Your task to perform on an android device: stop showing notifications on the lock screen Image 0: 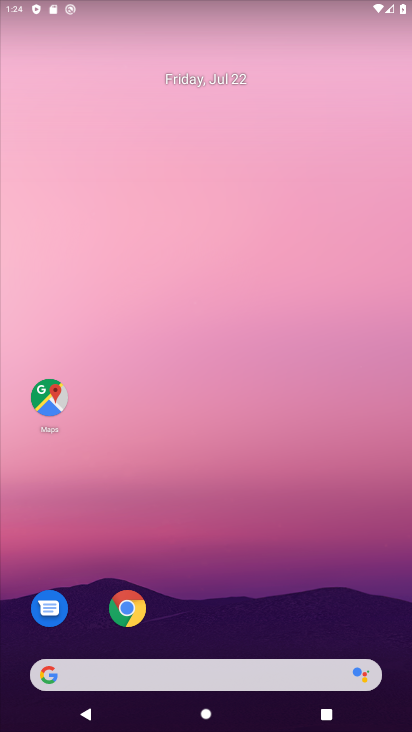
Step 0: drag from (393, 678) to (345, 78)
Your task to perform on an android device: stop showing notifications on the lock screen Image 1: 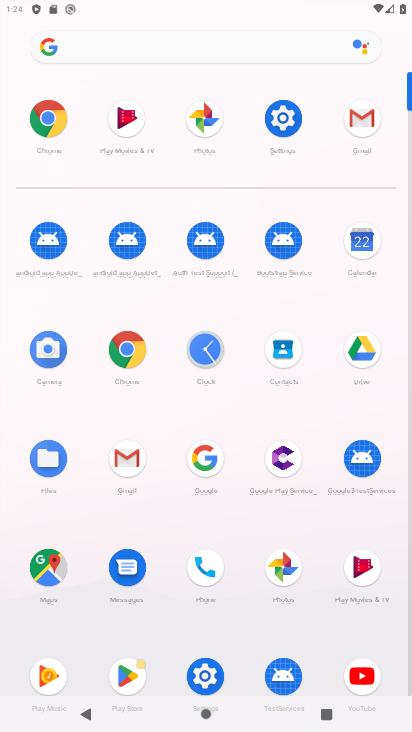
Step 1: click (284, 121)
Your task to perform on an android device: stop showing notifications on the lock screen Image 2: 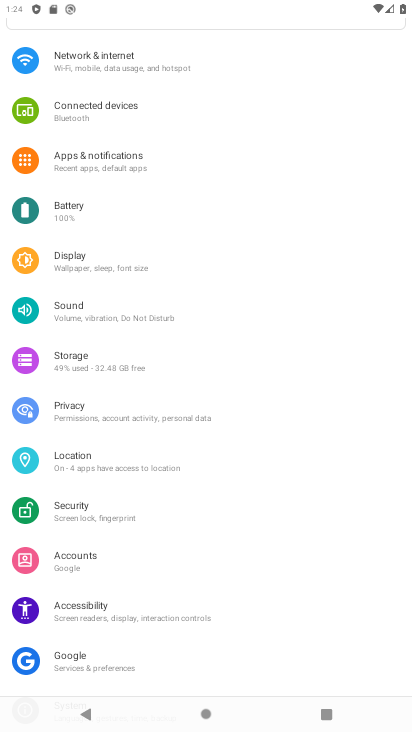
Step 2: click (95, 161)
Your task to perform on an android device: stop showing notifications on the lock screen Image 3: 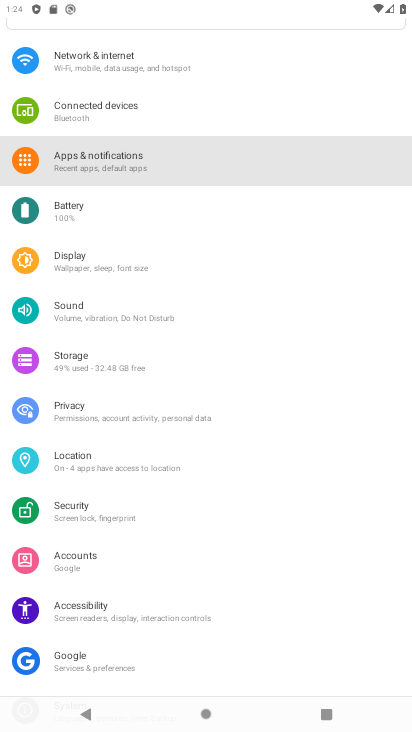
Step 3: click (103, 151)
Your task to perform on an android device: stop showing notifications on the lock screen Image 4: 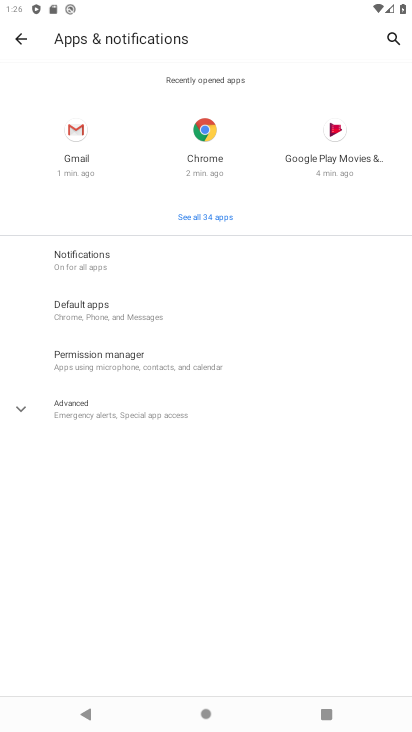
Step 4: click (73, 266)
Your task to perform on an android device: stop showing notifications on the lock screen Image 5: 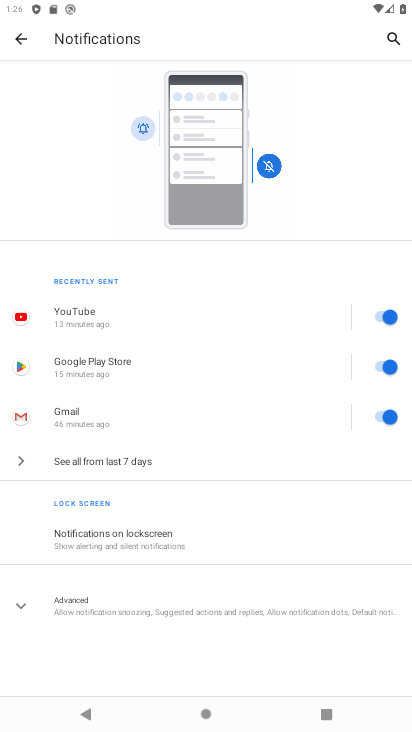
Step 5: click (85, 539)
Your task to perform on an android device: stop showing notifications on the lock screen Image 6: 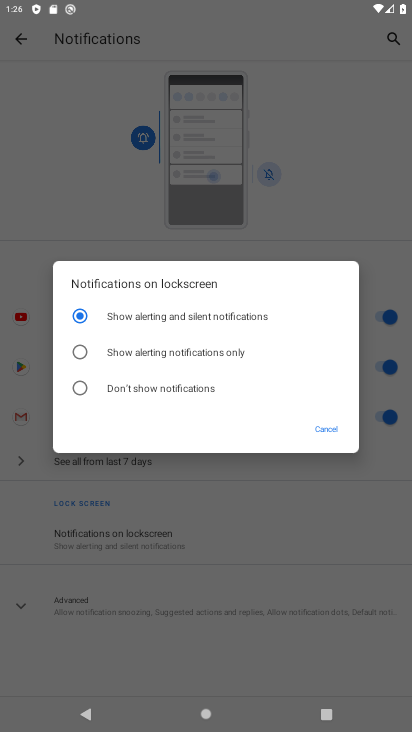
Step 6: click (82, 387)
Your task to perform on an android device: stop showing notifications on the lock screen Image 7: 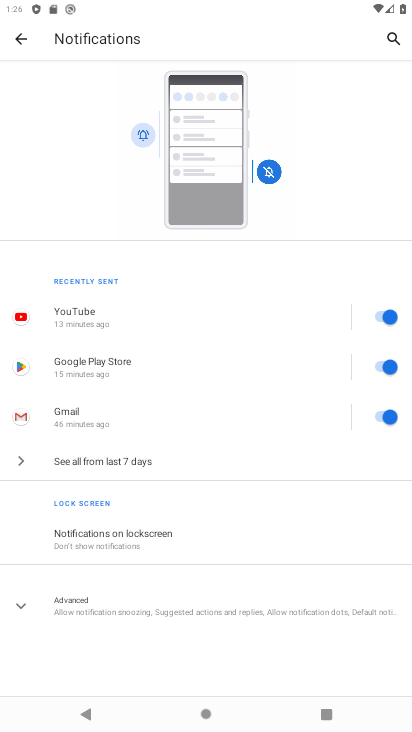
Step 7: task complete